Your task to perform on an android device: turn off translation in the chrome app Image 0: 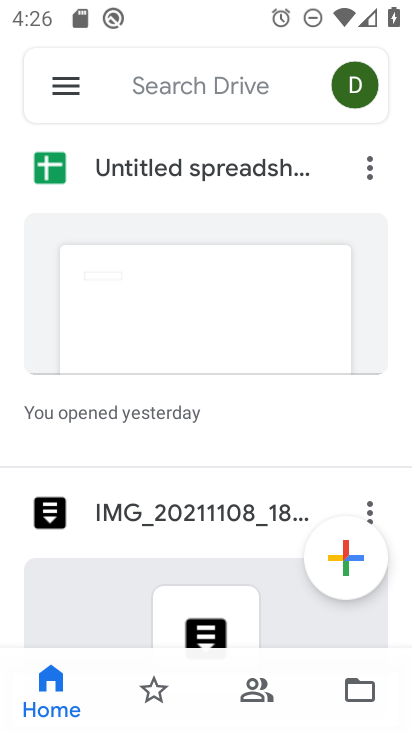
Step 0: press home button
Your task to perform on an android device: turn off translation in the chrome app Image 1: 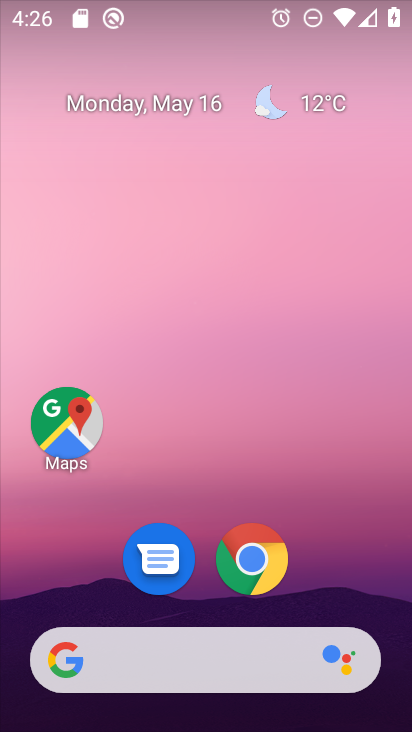
Step 1: click (318, 573)
Your task to perform on an android device: turn off translation in the chrome app Image 2: 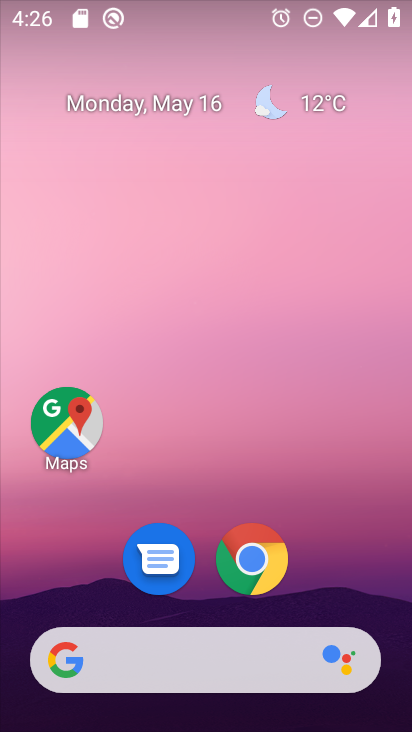
Step 2: click (262, 572)
Your task to perform on an android device: turn off translation in the chrome app Image 3: 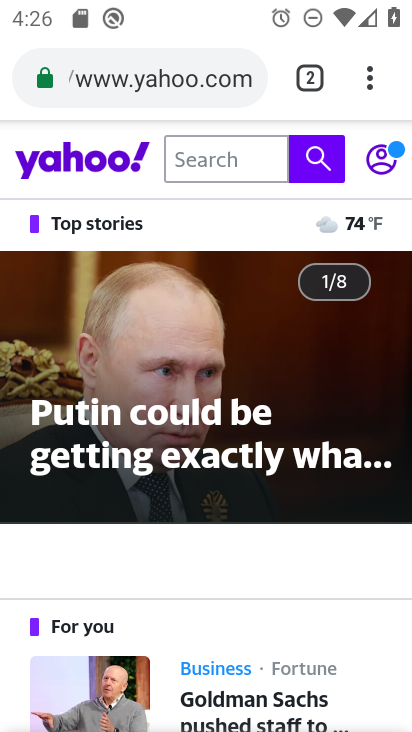
Step 3: click (370, 88)
Your task to perform on an android device: turn off translation in the chrome app Image 4: 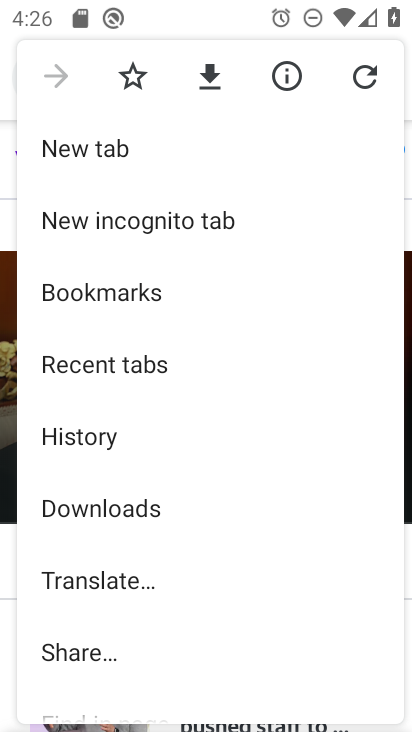
Step 4: drag from (200, 665) to (224, 443)
Your task to perform on an android device: turn off translation in the chrome app Image 5: 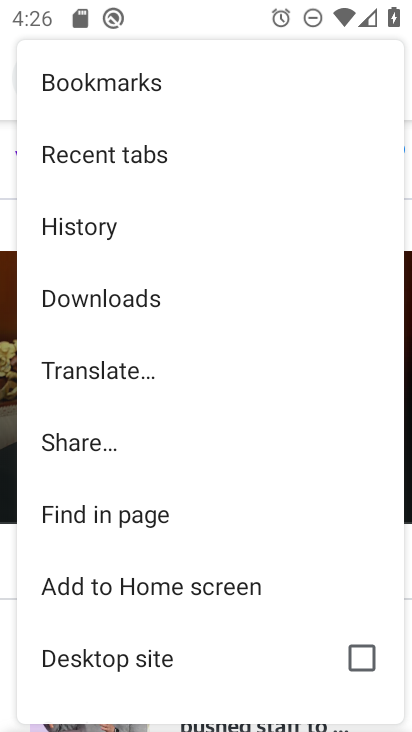
Step 5: drag from (208, 656) to (245, 351)
Your task to perform on an android device: turn off translation in the chrome app Image 6: 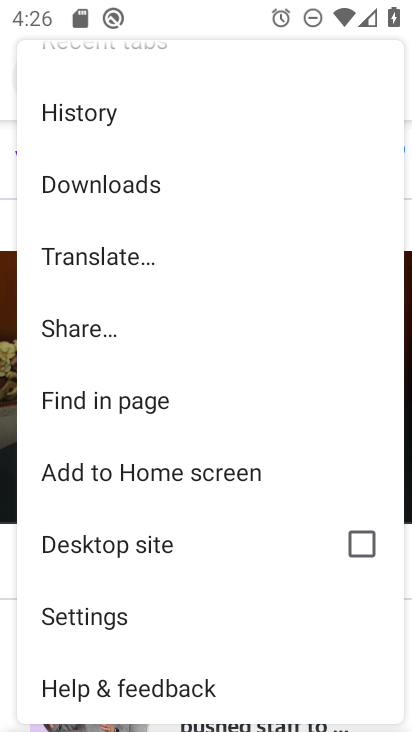
Step 6: click (157, 600)
Your task to perform on an android device: turn off translation in the chrome app Image 7: 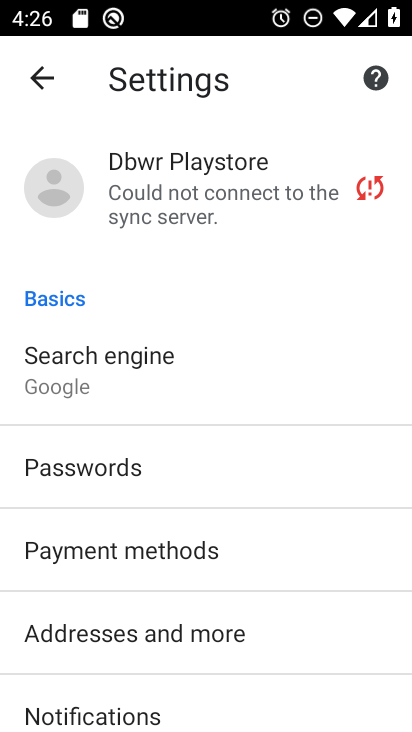
Step 7: drag from (179, 553) to (216, 144)
Your task to perform on an android device: turn off translation in the chrome app Image 8: 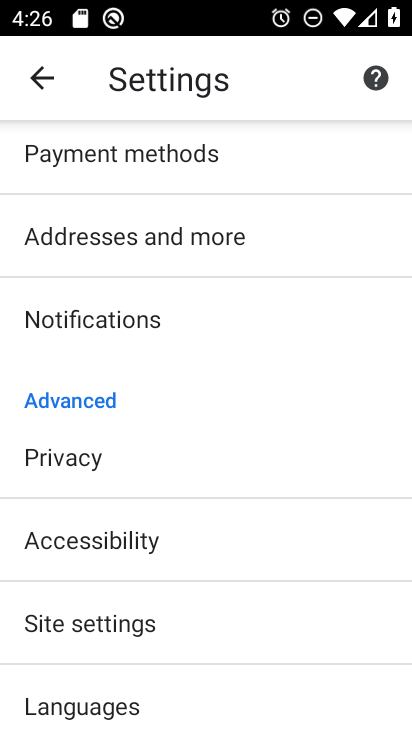
Step 8: drag from (193, 580) to (237, 316)
Your task to perform on an android device: turn off translation in the chrome app Image 9: 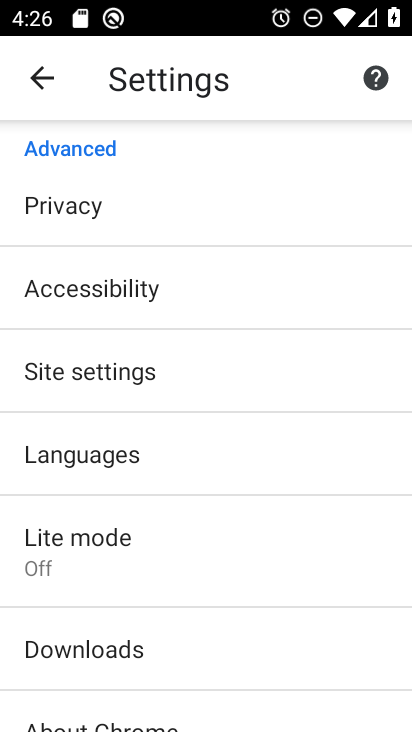
Step 9: click (209, 465)
Your task to perform on an android device: turn off translation in the chrome app Image 10: 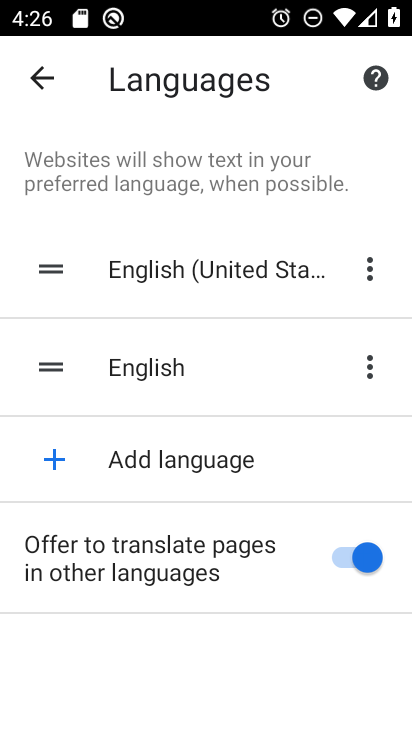
Step 10: click (294, 541)
Your task to perform on an android device: turn off translation in the chrome app Image 11: 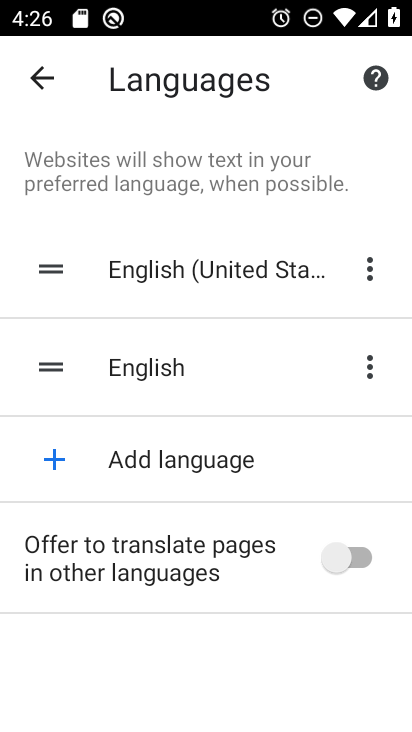
Step 11: task complete